Your task to perform on an android device: What's on my calendar tomorrow? Image 0: 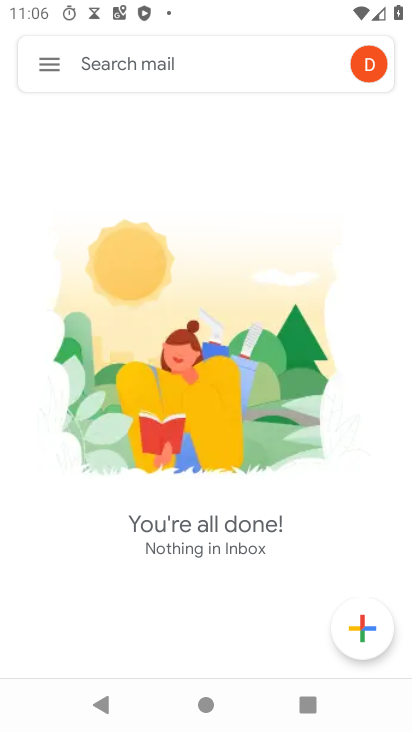
Step 0: press home button
Your task to perform on an android device: What's on my calendar tomorrow? Image 1: 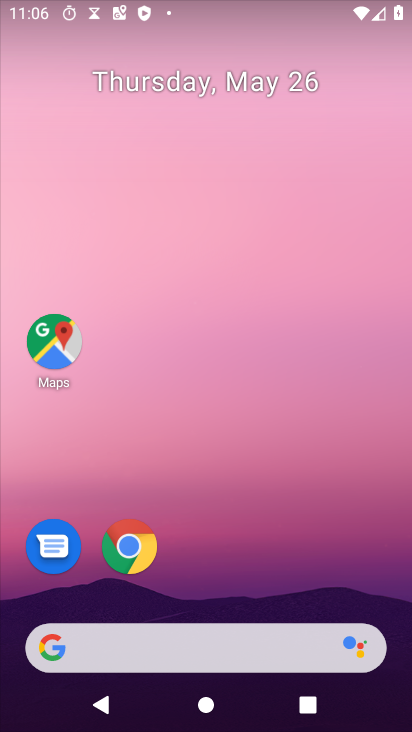
Step 1: drag from (339, 549) to (357, 121)
Your task to perform on an android device: What's on my calendar tomorrow? Image 2: 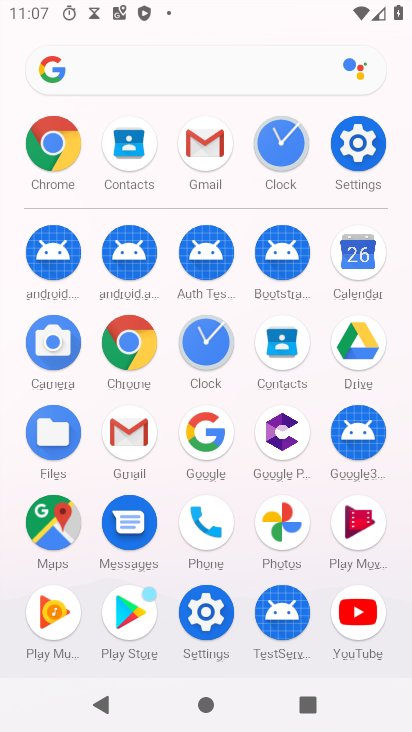
Step 2: click (359, 241)
Your task to perform on an android device: What's on my calendar tomorrow? Image 3: 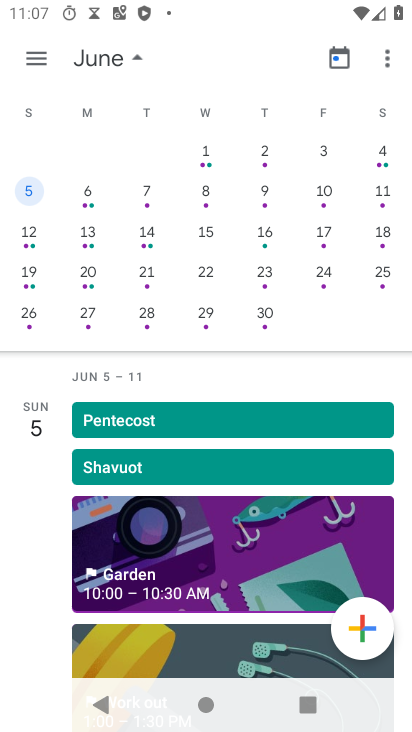
Step 3: drag from (53, 247) to (359, 268)
Your task to perform on an android device: What's on my calendar tomorrow? Image 4: 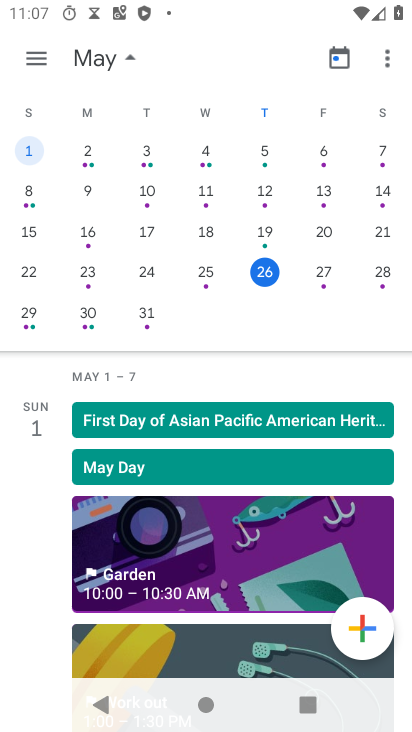
Step 4: click (320, 274)
Your task to perform on an android device: What's on my calendar tomorrow? Image 5: 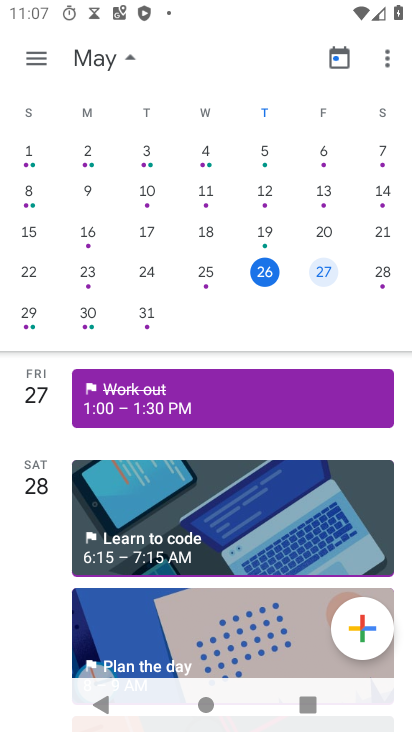
Step 5: task complete